Your task to perform on an android device: turn on translation in the chrome app Image 0: 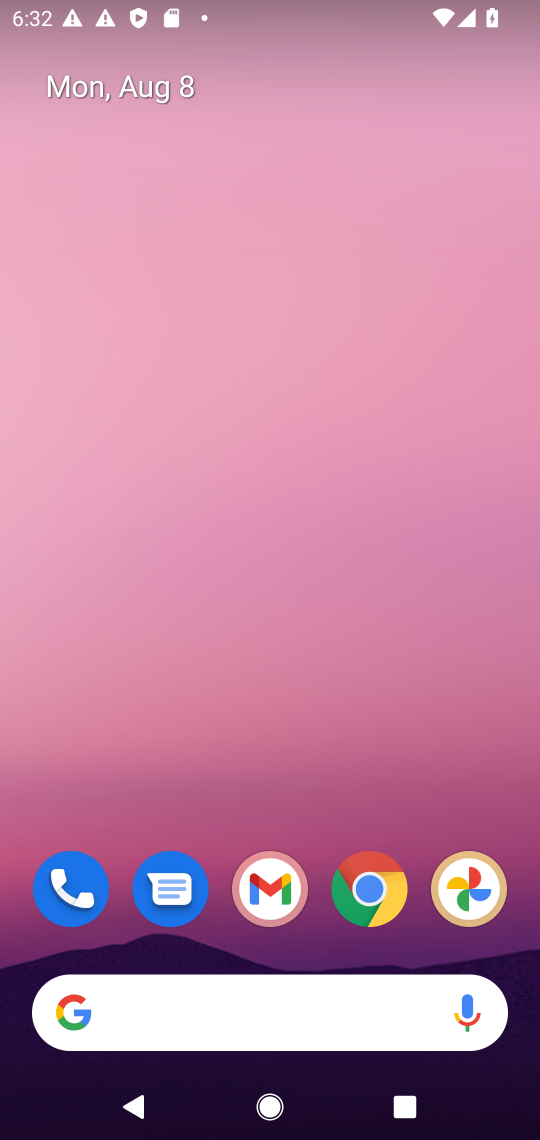
Step 0: click (364, 888)
Your task to perform on an android device: turn on translation in the chrome app Image 1: 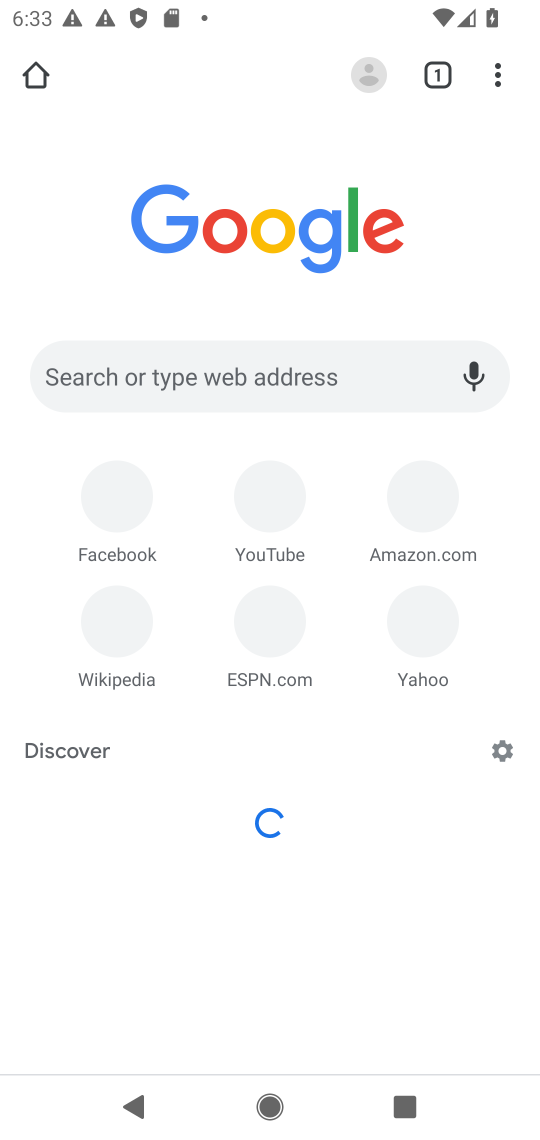
Step 1: click (500, 72)
Your task to perform on an android device: turn on translation in the chrome app Image 2: 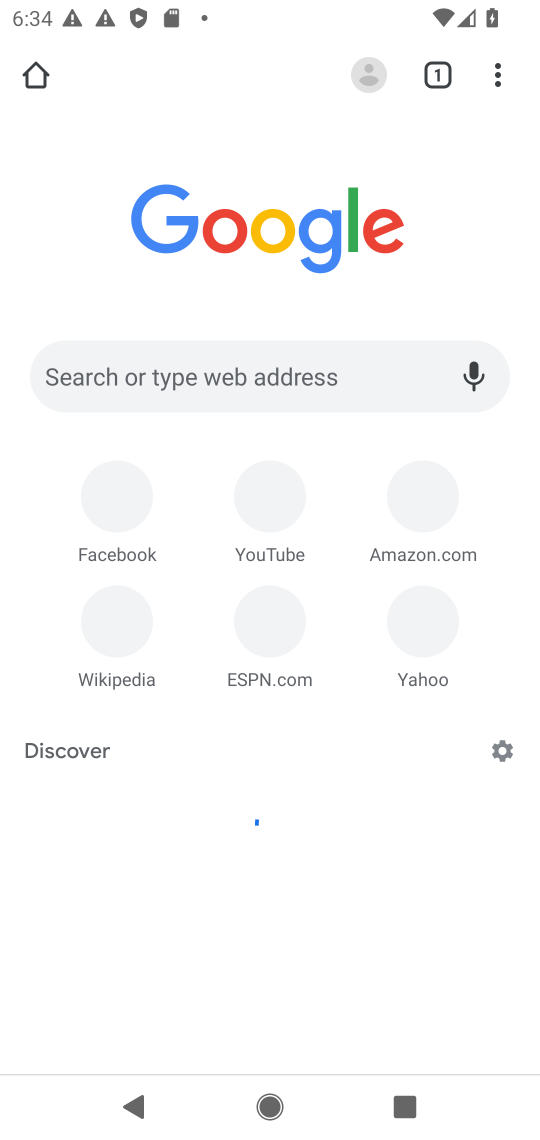
Step 2: click (500, 72)
Your task to perform on an android device: turn on translation in the chrome app Image 3: 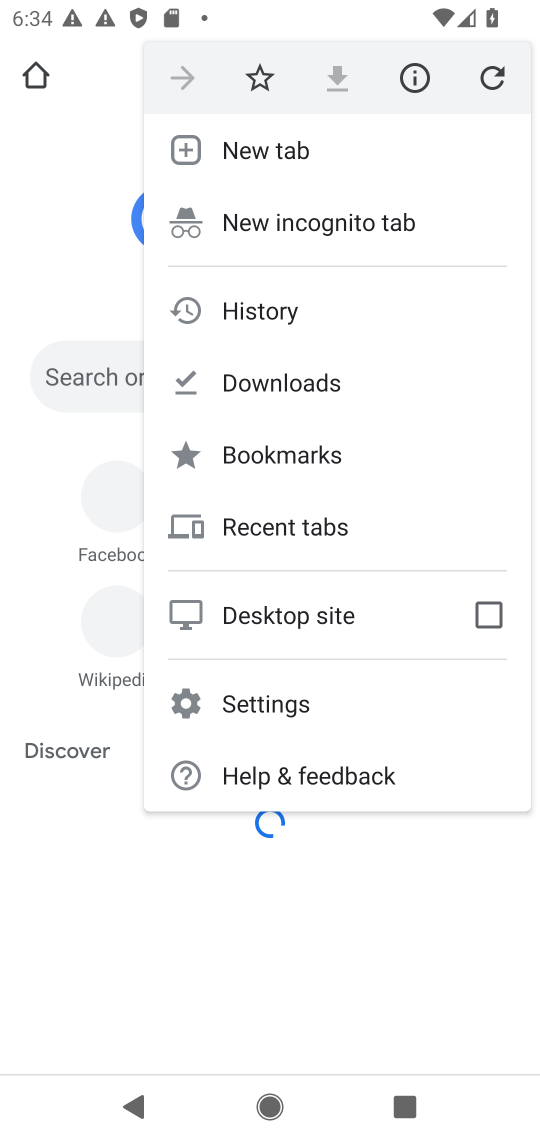
Step 3: click (234, 701)
Your task to perform on an android device: turn on translation in the chrome app Image 4: 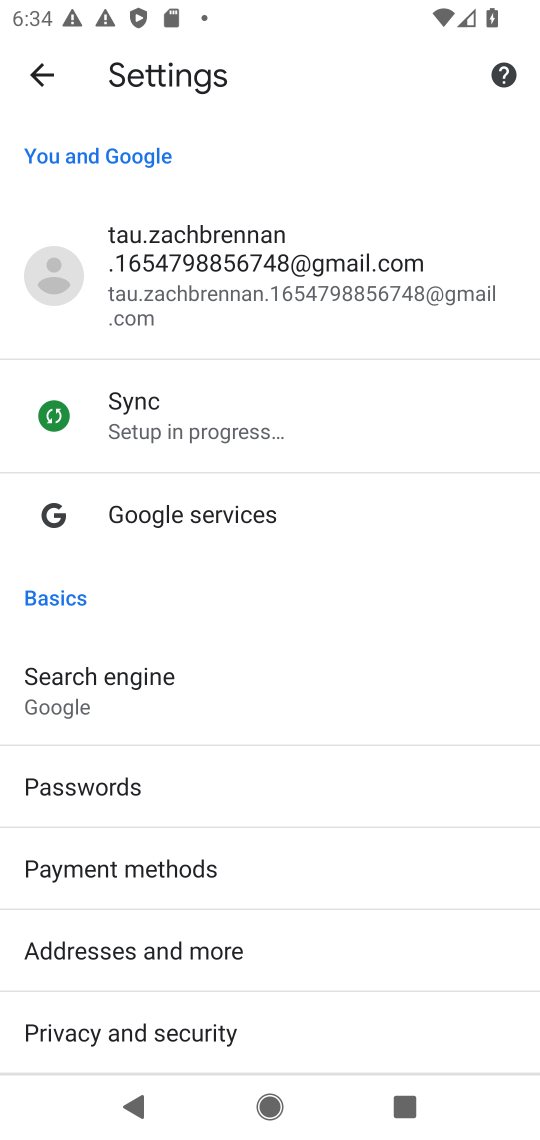
Step 4: drag from (394, 1026) to (438, 428)
Your task to perform on an android device: turn on translation in the chrome app Image 5: 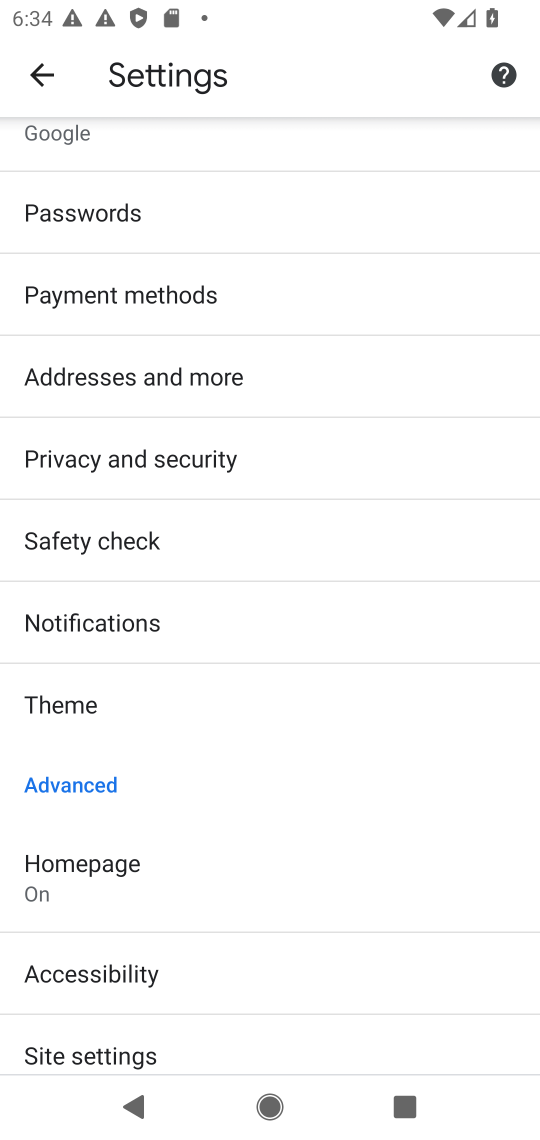
Step 5: drag from (394, 880) to (410, 411)
Your task to perform on an android device: turn on translation in the chrome app Image 6: 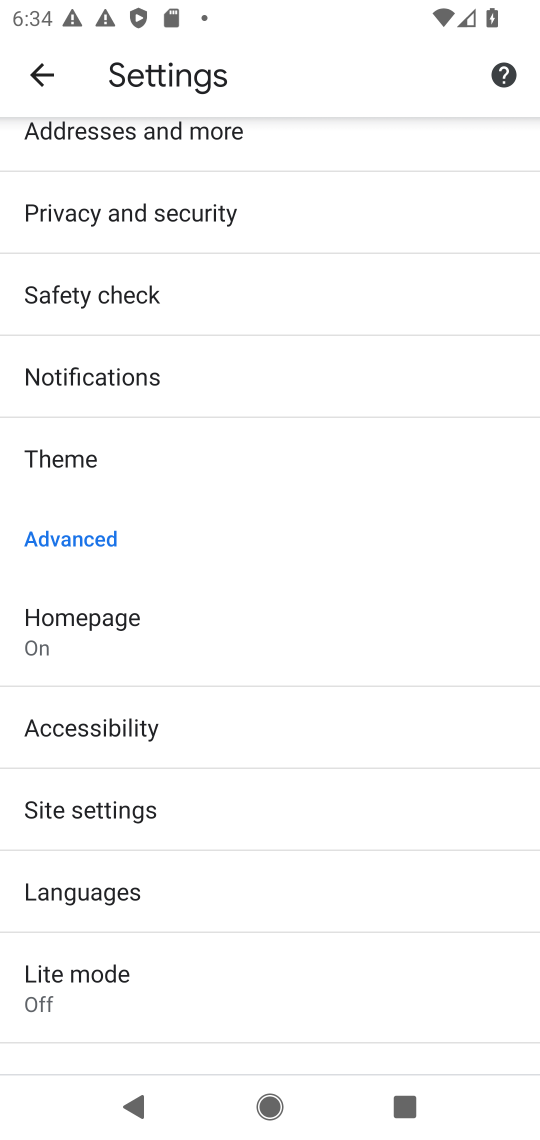
Step 6: click (117, 887)
Your task to perform on an android device: turn on translation in the chrome app Image 7: 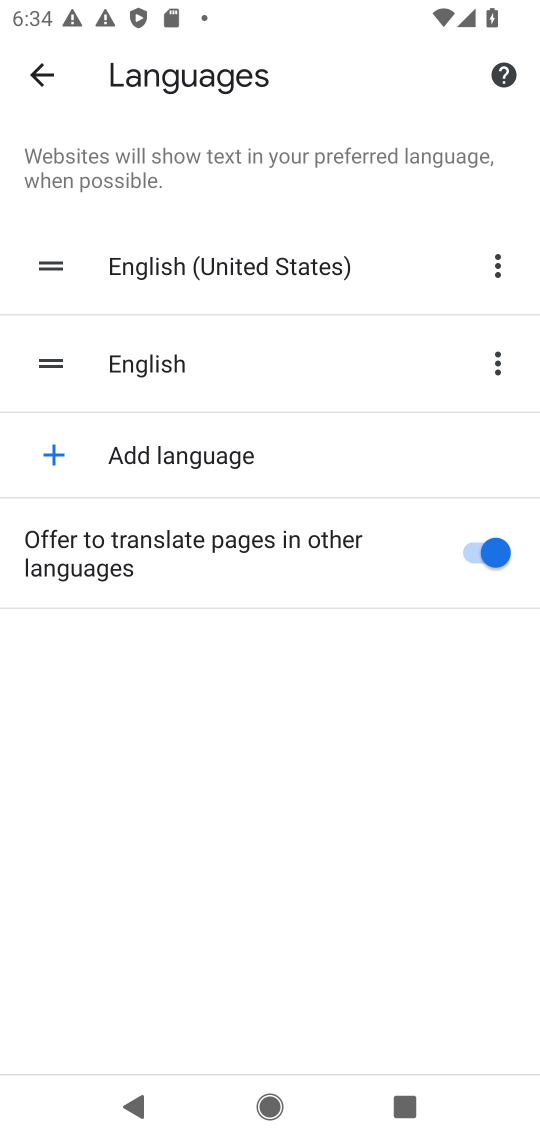
Step 7: task complete